Your task to perform on an android device: turn pop-ups off in chrome Image 0: 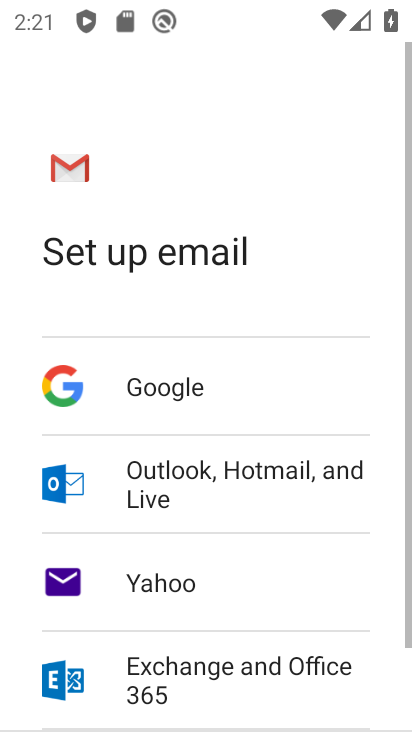
Step 0: press home button
Your task to perform on an android device: turn pop-ups off in chrome Image 1: 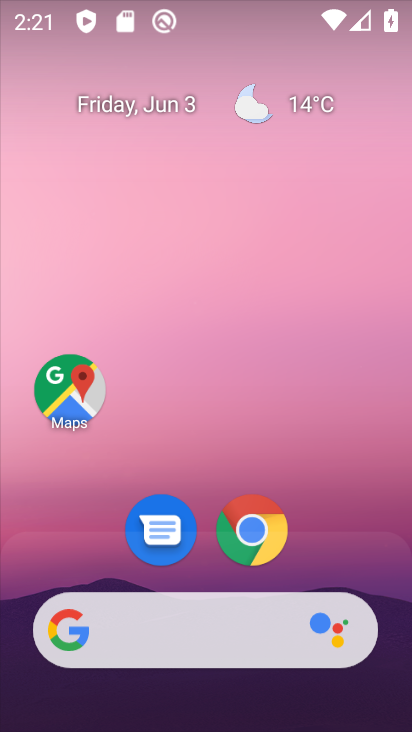
Step 1: click (247, 551)
Your task to perform on an android device: turn pop-ups off in chrome Image 2: 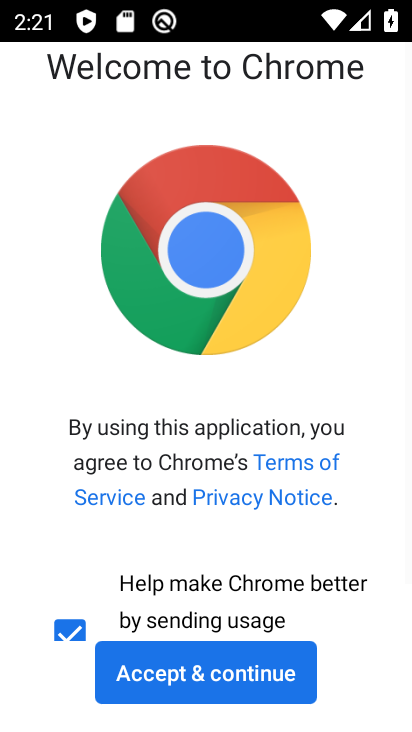
Step 2: click (248, 690)
Your task to perform on an android device: turn pop-ups off in chrome Image 3: 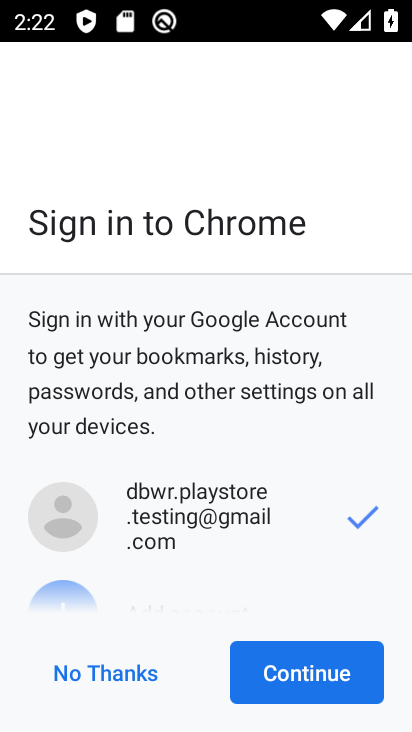
Step 3: click (304, 688)
Your task to perform on an android device: turn pop-ups off in chrome Image 4: 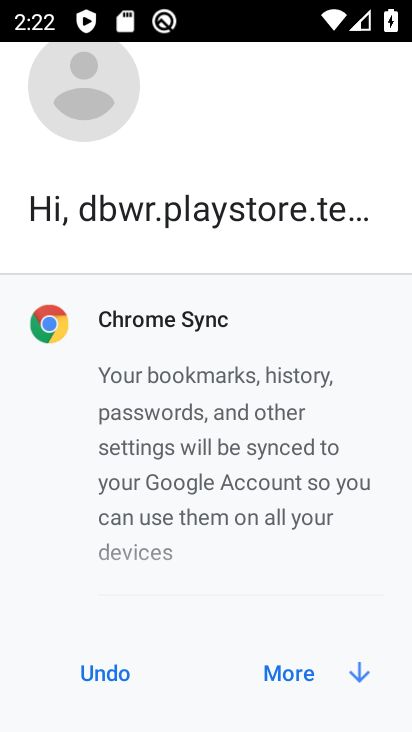
Step 4: click (304, 685)
Your task to perform on an android device: turn pop-ups off in chrome Image 5: 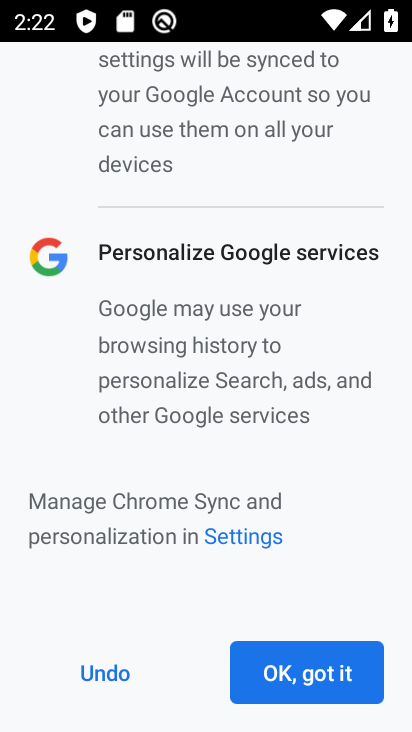
Step 5: click (290, 683)
Your task to perform on an android device: turn pop-ups off in chrome Image 6: 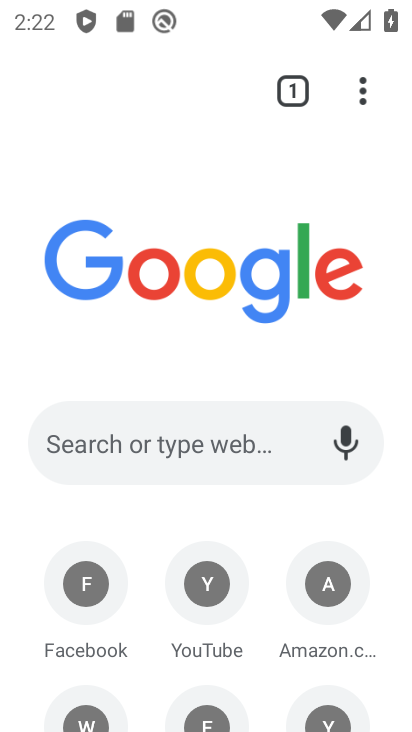
Step 6: drag from (372, 97) to (218, 584)
Your task to perform on an android device: turn pop-ups off in chrome Image 7: 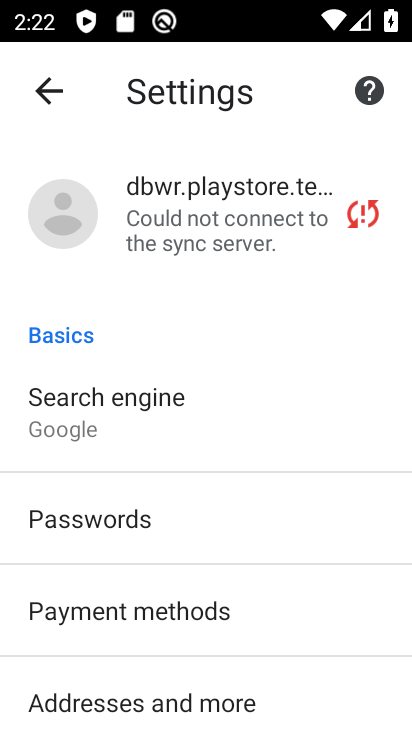
Step 7: drag from (191, 697) to (316, 340)
Your task to perform on an android device: turn pop-ups off in chrome Image 8: 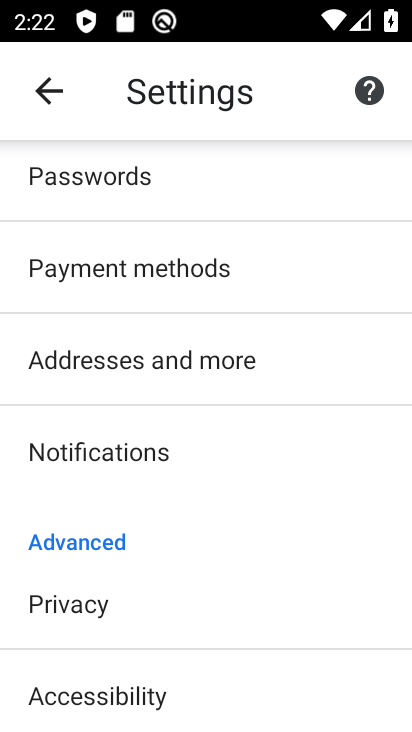
Step 8: drag from (189, 630) to (243, 432)
Your task to perform on an android device: turn pop-ups off in chrome Image 9: 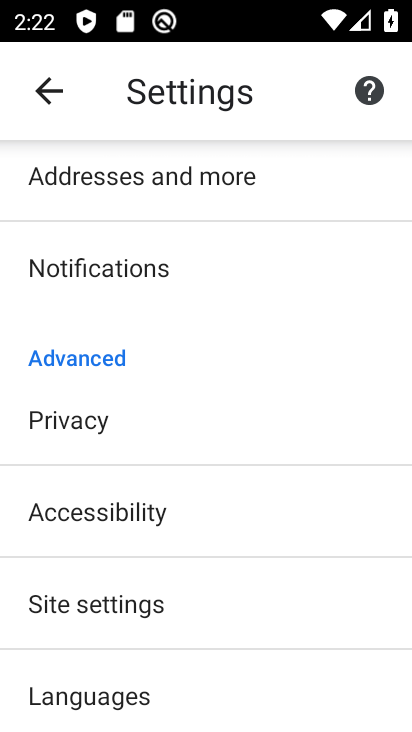
Step 9: drag from (198, 631) to (249, 406)
Your task to perform on an android device: turn pop-ups off in chrome Image 10: 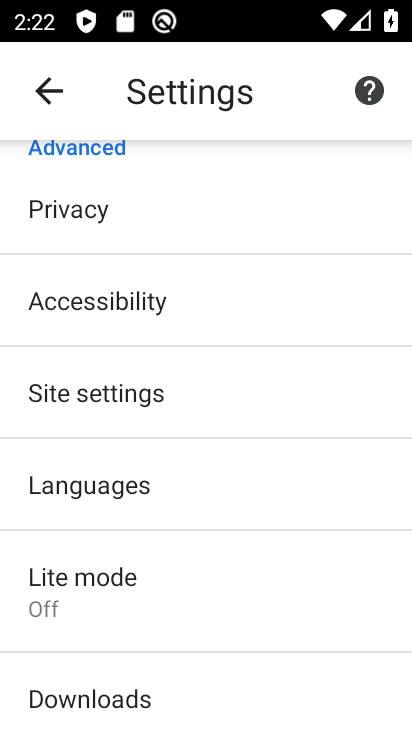
Step 10: drag from (129, 645) to (181, 439)
Your task to perform on an android device: turn pop-ups off in chrome Image 11: 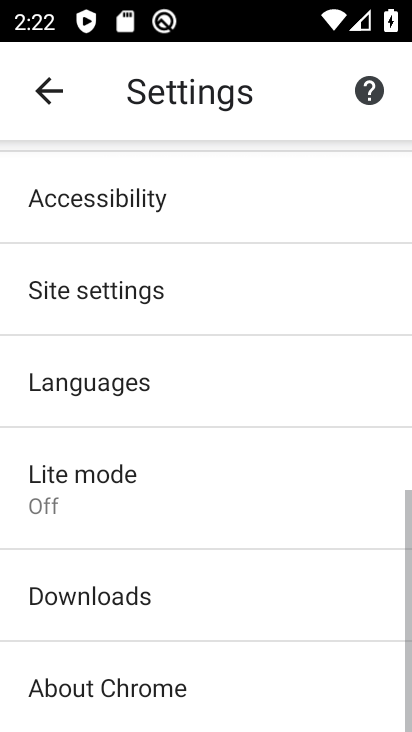
Step 11: click (180, 311)
Your task to perform on an android device: turn pop-ups off in chrome Image 12: 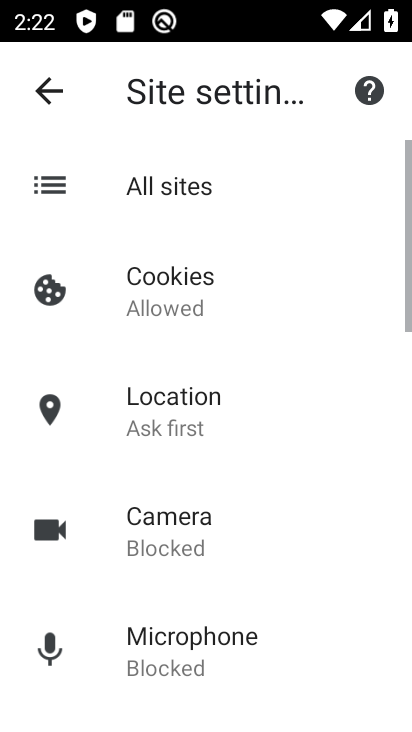
Step 12: drag from (205, 642) to (273, 387)
Your task to perform on an android device: turn pop-ups off in chrome Image 13: 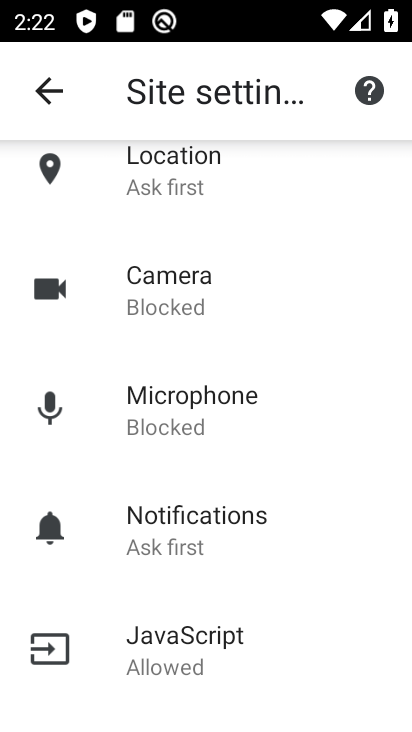
Step 13: drag from (194, 691) to (253, 414)
Your task to perform on an android device: turn pop-ups off in chrome Image 14: 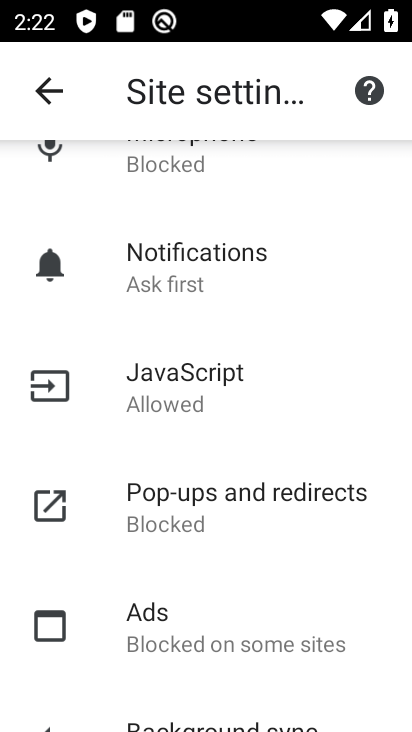
Step 14: click (236, 537)
Your task to perform on an android device: turn pop-ups off in chrome Image 15: 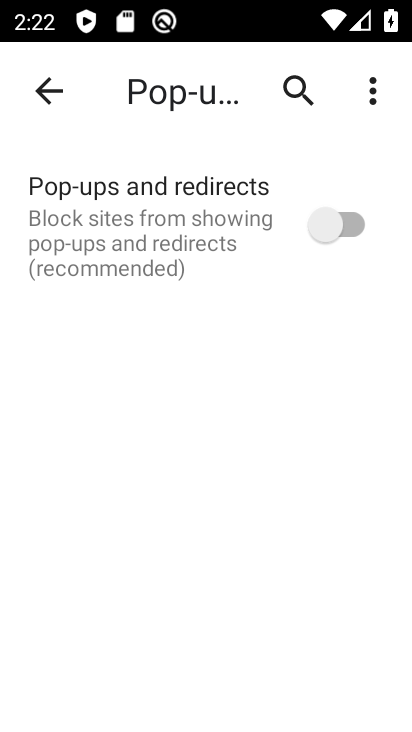
Step 15: task complete